Your task to perform on an android device: stop showing notifications on the lock screen Image 0: 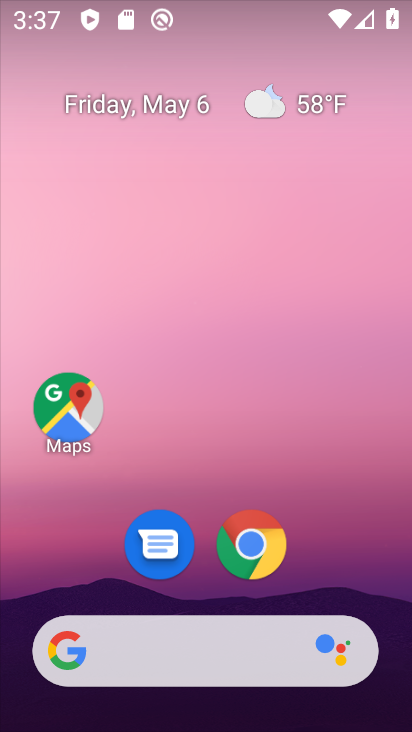
Step 0: drag from (149, 617) to (246, 137)
Your task to perform on an android device: stop showing notifications on the lock screen Image 1: 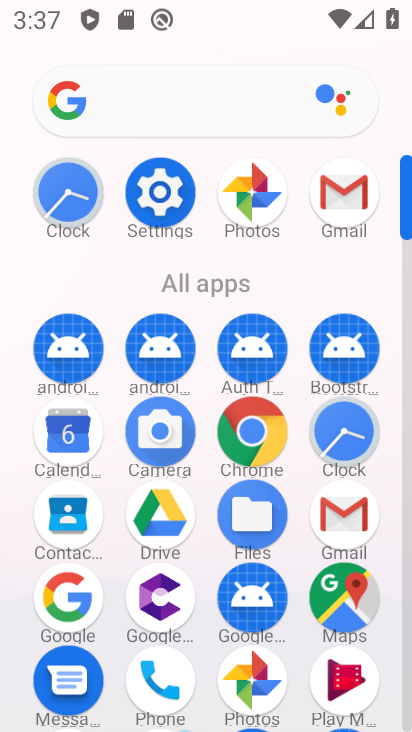
Step 1: drag from (138, 636) to (199, 404)
Your task to perform on an android device: stop showing notifications on the lock screen Image 2: 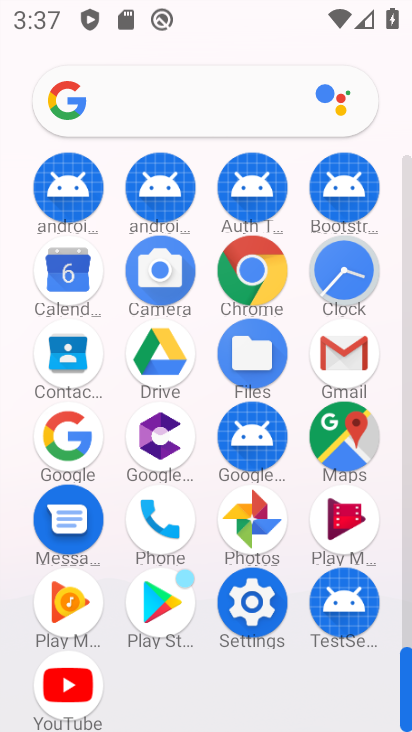
Step 2: click (255, 626)
Your task to perform on an android device: stop showing notifications on the lock screen Image 3: 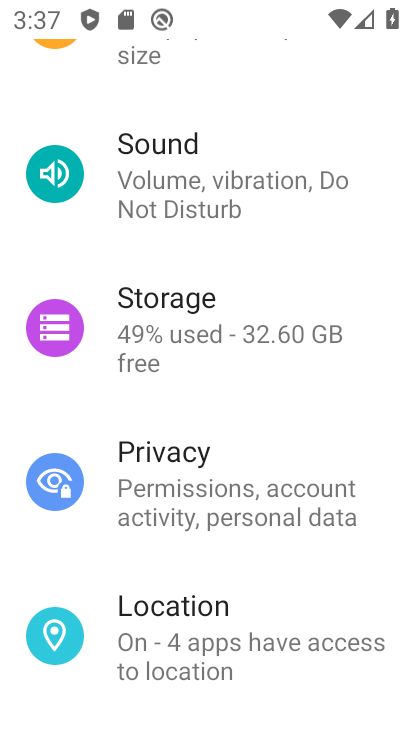
Step 3: drag from (184, 293) to (174, 590)
Your task to perform on an android device: stop showing notifications on the lock screen Image 4: 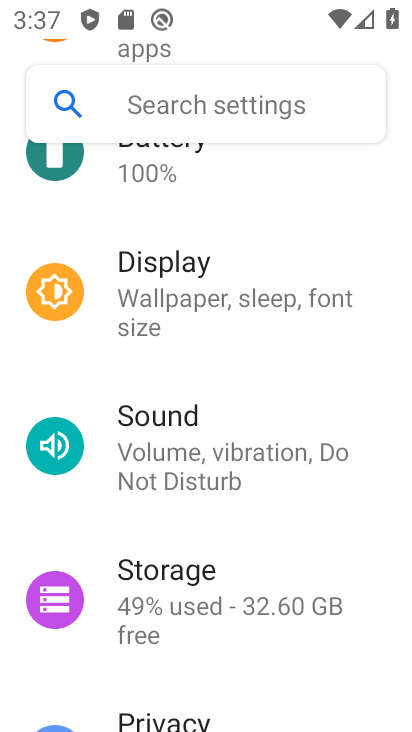
Step 4: drag from (204, 274) to (192, 566)
Your task to perform on an android device: stop showing notifications on the lock screen Image 5: 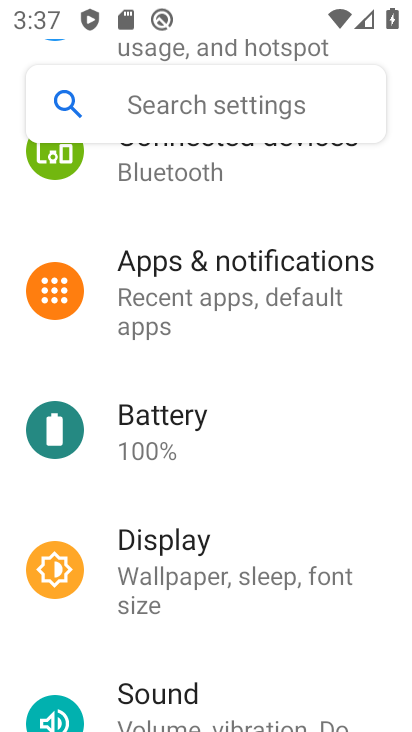
Step 5: click (223, 302)
Your task to perform on an android device: stop showing notifications on the lock screen Image 6: 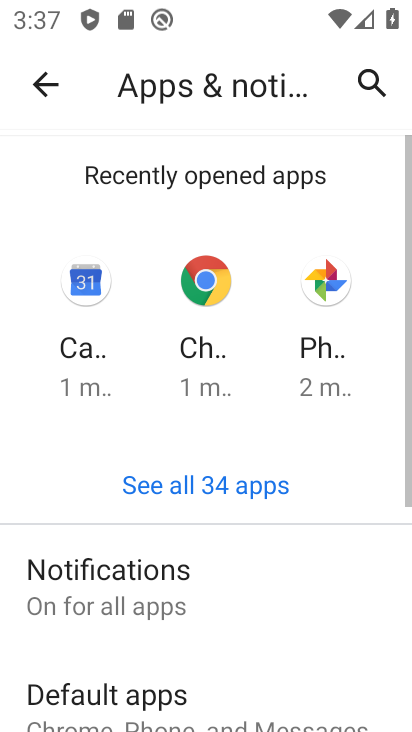
Step 6: click (170, 607)
Your task to perform on an android device: stop showing notifications on the lock screen Image 7: 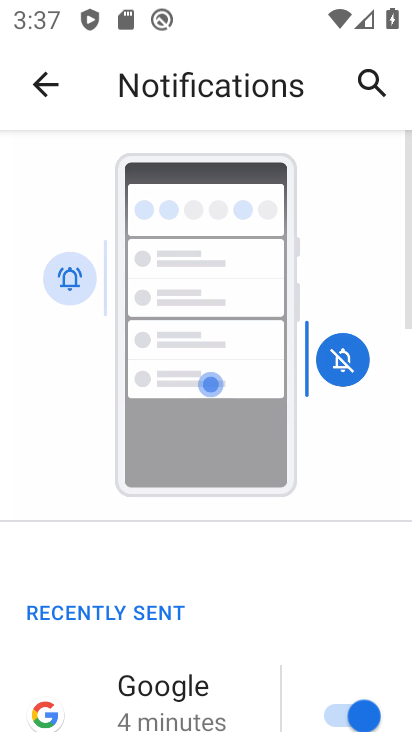
Step 7: drag from (186, 544) to (254, 212)
Your task to perform on an android device: stop showing notifications on the lock screen Image 8: 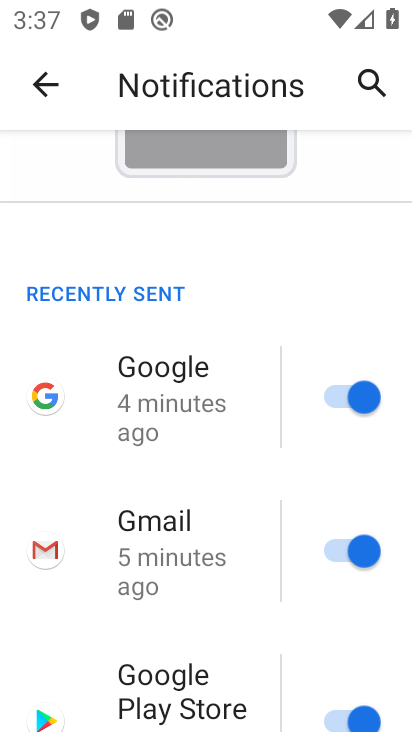
Step 8: drag from (181, 676) to (273, 244)
Your task to perform on an android device: stop showing notifications on the lock screen Image 9: 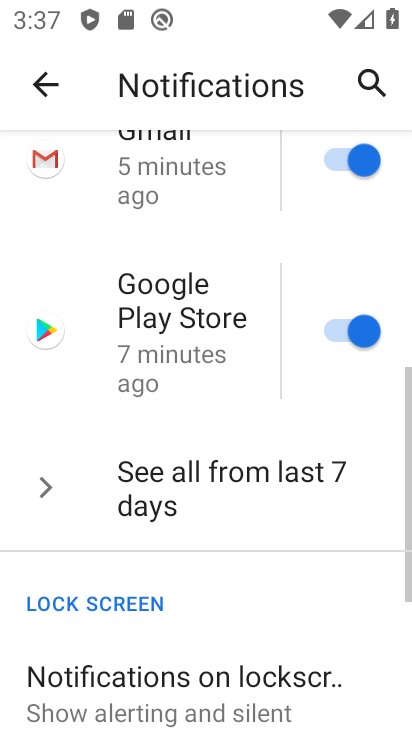
Step 9: drag from (169, 638) to (241, 280)
Your task to perform on an android device: stop showing notifications on the lock screen Image 10: 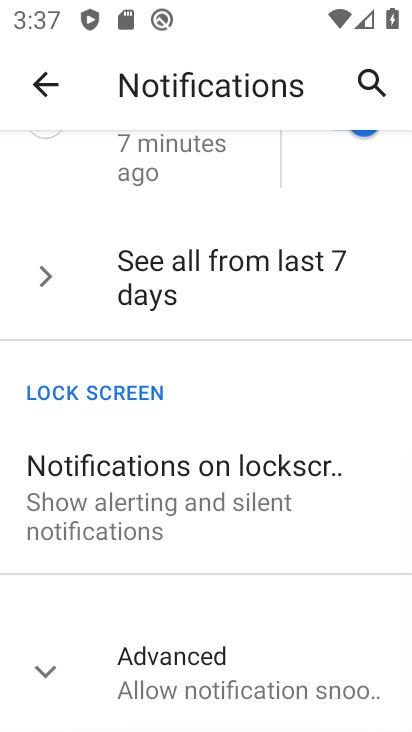
Step 10: click (181, 467)
Your task to perform on an android device: stop showing notifications on the lock screen Image 11: 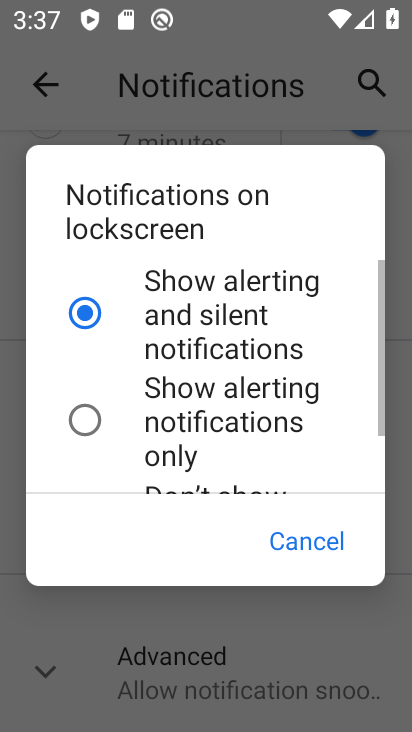
Step 11: drag from (173, 456) to (226, 219)
Your task to perform on an android device: stop showing notifications on the lock screen Image 12: 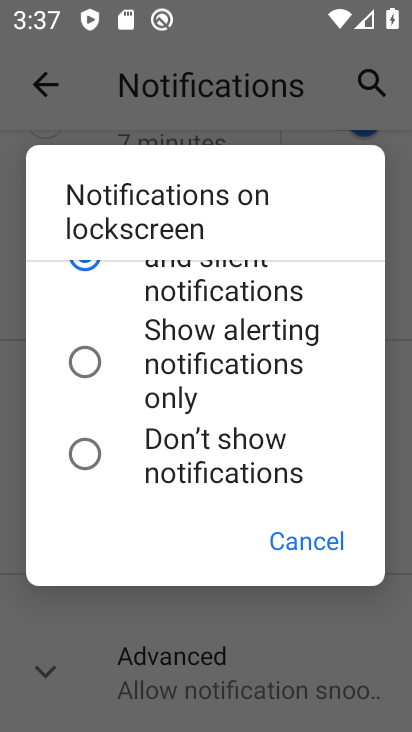
Step 12: click (171, 483)
Your task to perform on an android device: stop showing notifications on the lock screen Image 13: 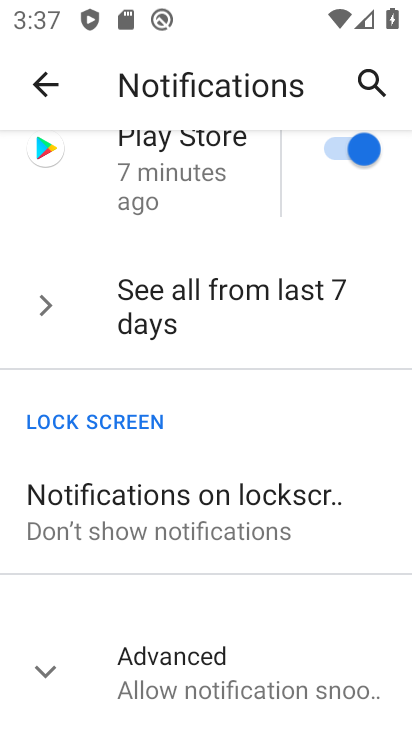
Step 13: task complete